Your task to perform on an android device: Go to Maps Image 0: 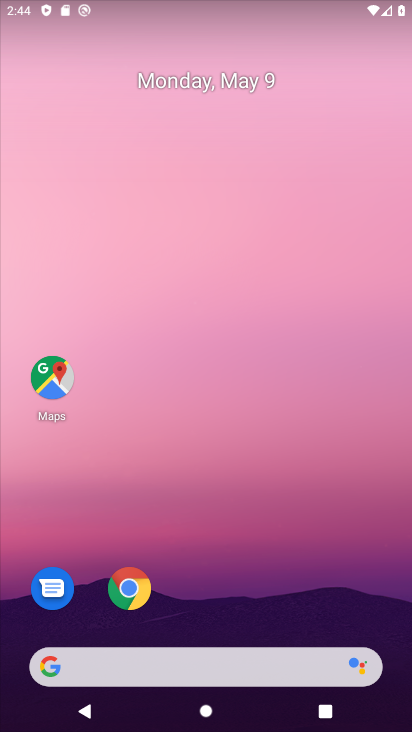
Step 0: click (52, 389)
Your task to perform on an android device: Go to Maps Image 1: 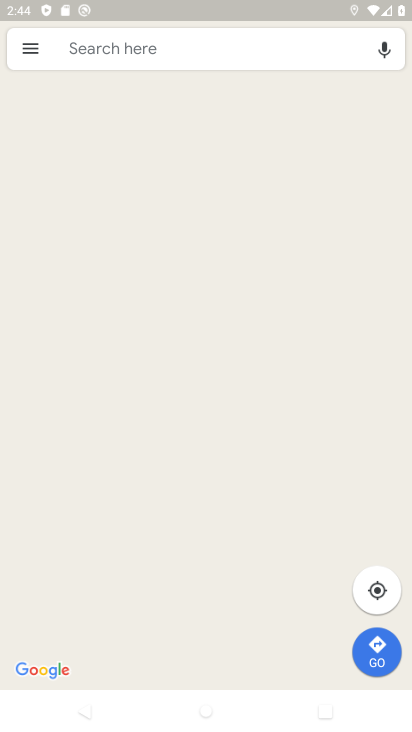
Step 1: task complete